Your task to perform on an android device: turn off notifications in google photos Image 0: 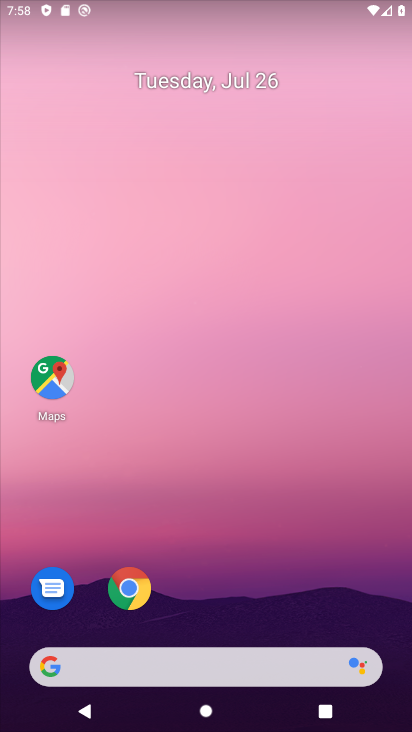
Step 0: drag from (266, 624) to (261, 114)
Your task to perform on an android device: turn off notifications in google photos Image 1: 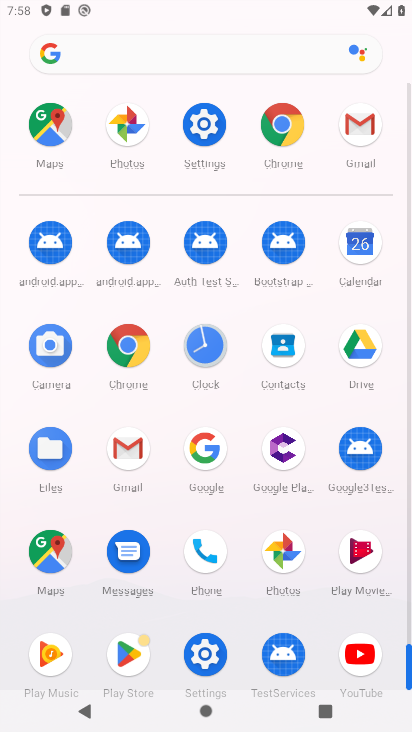
Step 1: click (285, 549)
Your task to perform on an android device: turn off notifications in google photos Image 2: 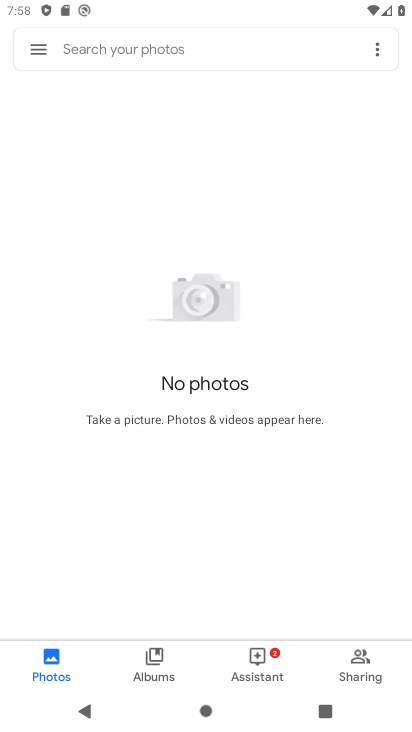
Step 2: click (40, 55)
Your task to perform on an android device: turn off notifications in google photos Image 3: 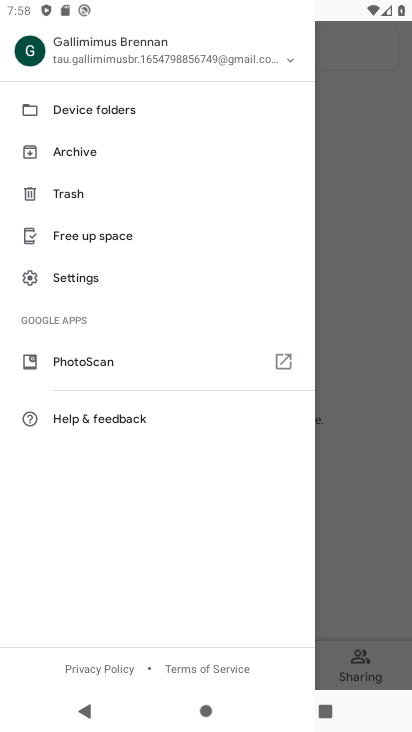
Step 3: click (90, 287)
Your task to perform on an android device: turn off notifications in google photos Image 4: 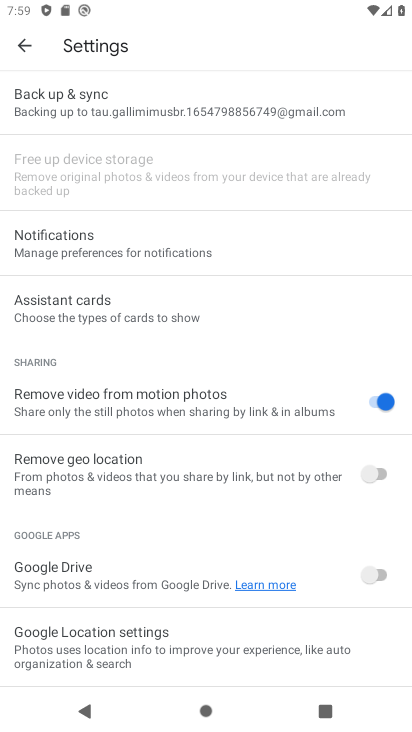
Step 4: click (164, 241)
Your task to perform on an android device: turn off notifications in google photos Image 5: 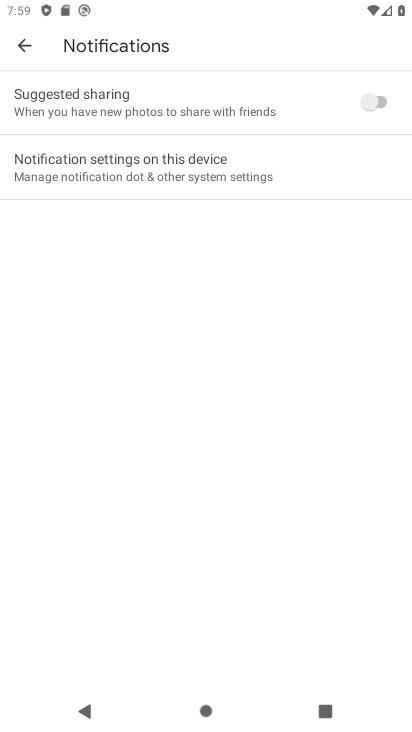
Step 5: click (164, 162)
Your task to perform on an android device: turn off notifications in google photos Image 6: 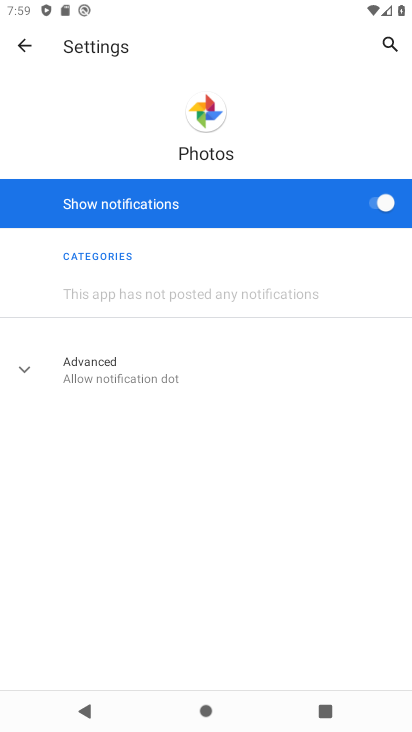
Step 6: click (367, 200)
Your task to perform on an android device: turn off notifications in google photos Image 7: 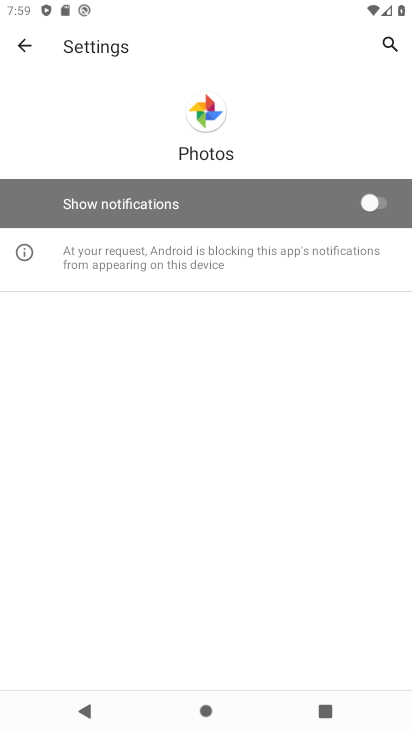
Step 7: task complete